Your task to perform on an android device: toggle translation in the chrome app Image 0: 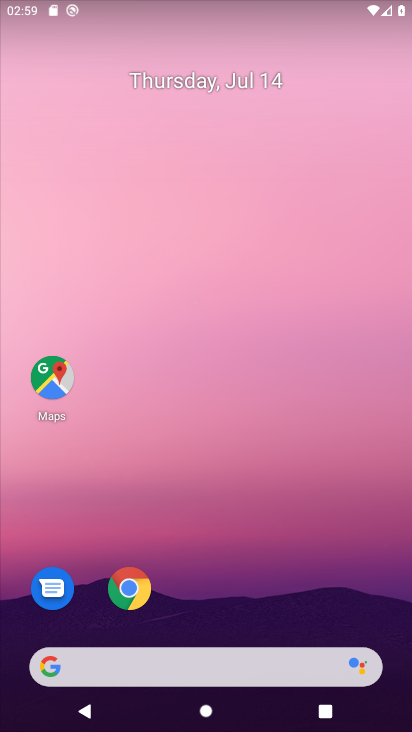
Step 0: click (134, 593)
Your task to perform on an android device: toggle translation in the chrome app Image 1: 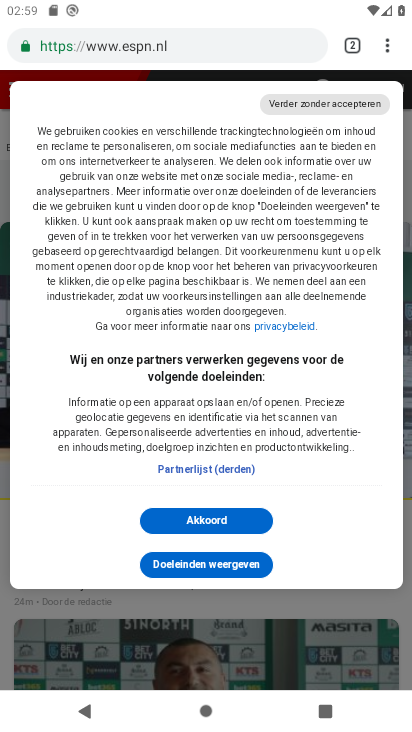
Step 1: click (392, 43)
Your task to perform on an android device: toggle translation in the chrome app Image 2: 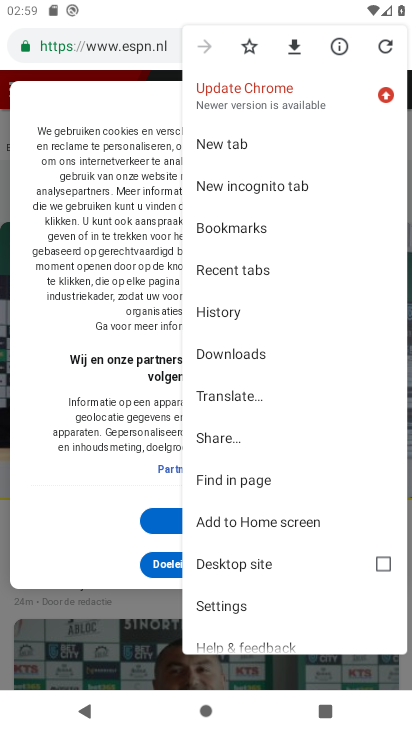
Step 2: click (258, 596)
Your task to perform on an android device: toggle translation in the chrome app Image 3: 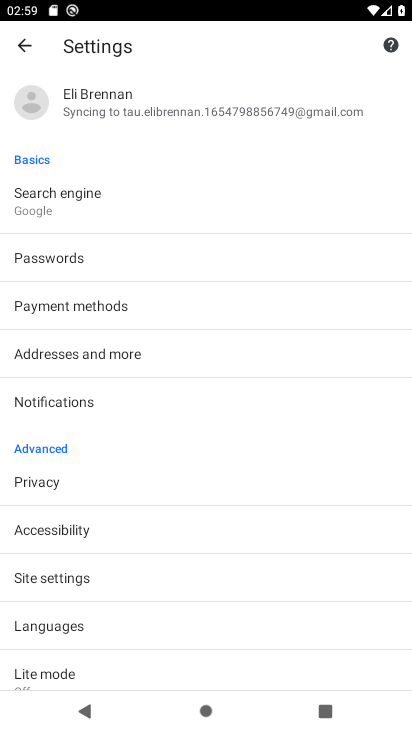
Step 3: click (128, 629)
Your task to perform on an android device: toggle translation in the chrome app Image 4: 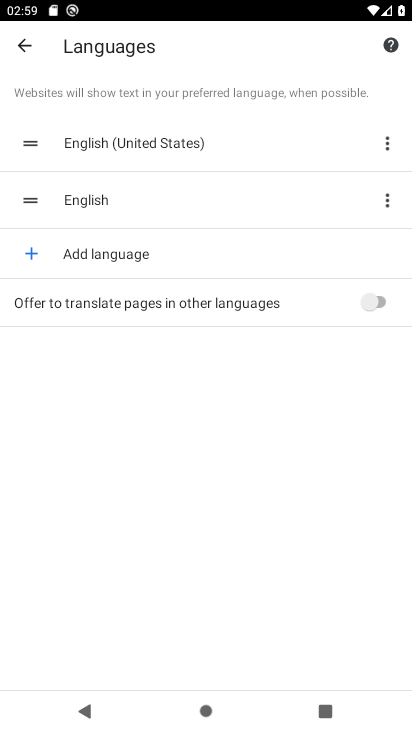
Step 4: click (368, 306)
Your task to perform on an android device: toggle translation in the chrome app Image 5: 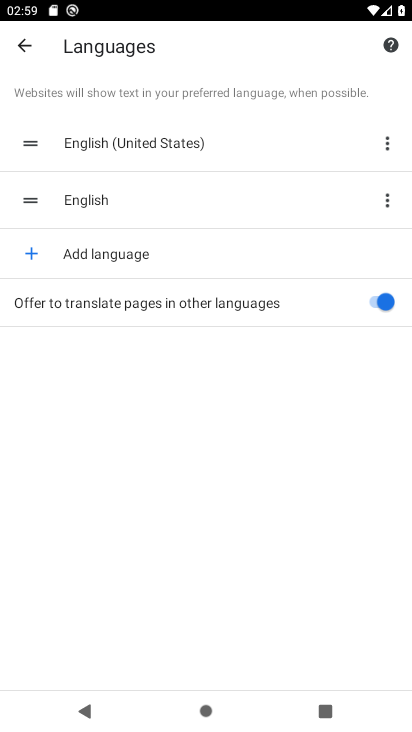
Step 5: task complete